Your task to perform on an android device: Open my contact list Image 0: 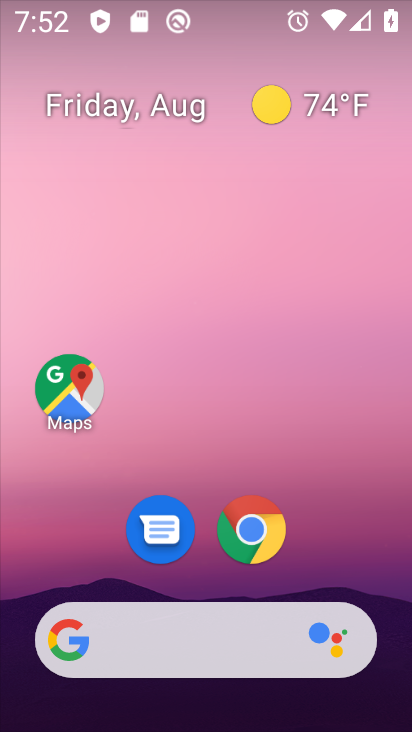
Step 0: drag from (198, 644) to (238, 142)
Your task to perform on an android device: Open my contact list Image 1: 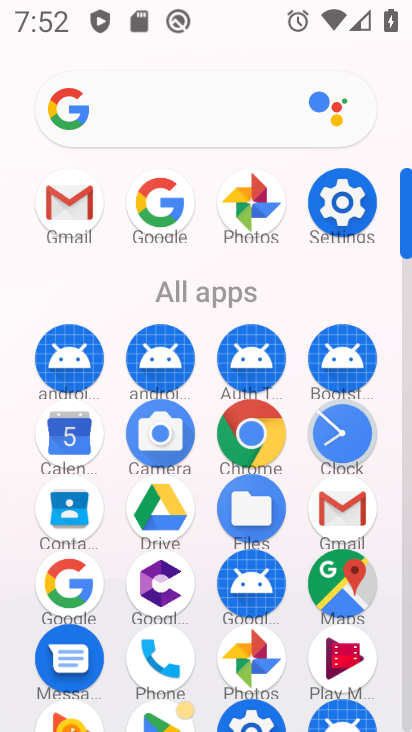
Step 1: click (72, 513)
Your task to perform on an android device: Open my contact list Image 2: 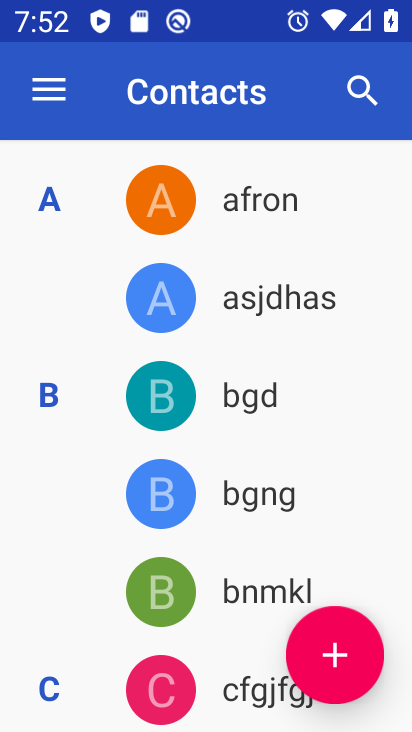
Step 2: task complete